Your task to perform on an android device: turn on airplane mode Image 0: 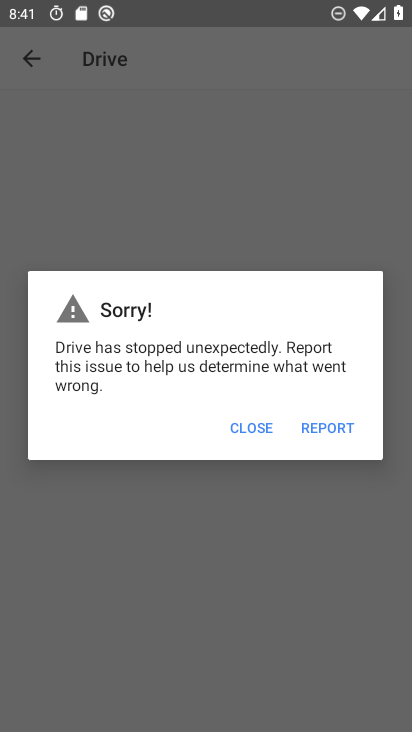
Step 0: press home button
Your task to perform on an android device: turn on airplane mode Image 1: 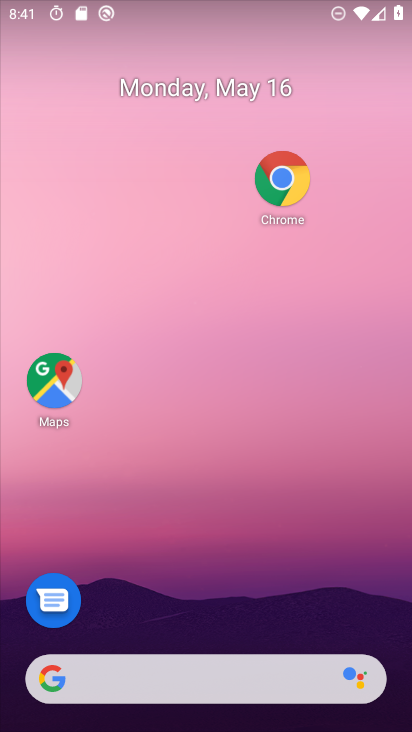
Step 1: drag from (125, 676) to (281, 115)
Your task to perform on an android device: turn on airplane mode Image 2: 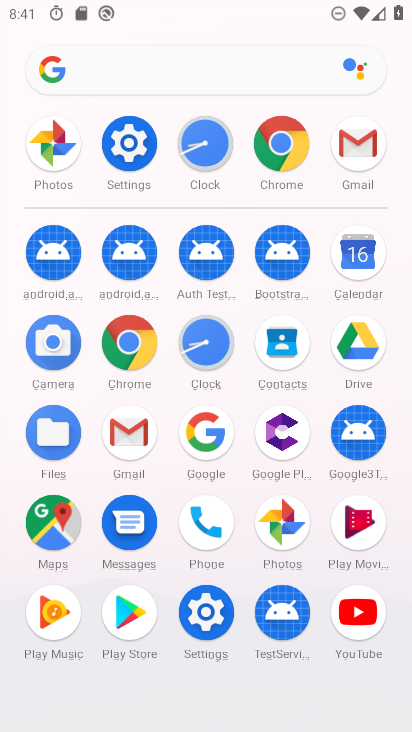
Step 2: click (128, 153)
Your task to perform on an android device: turn on airplane mode Image 3: 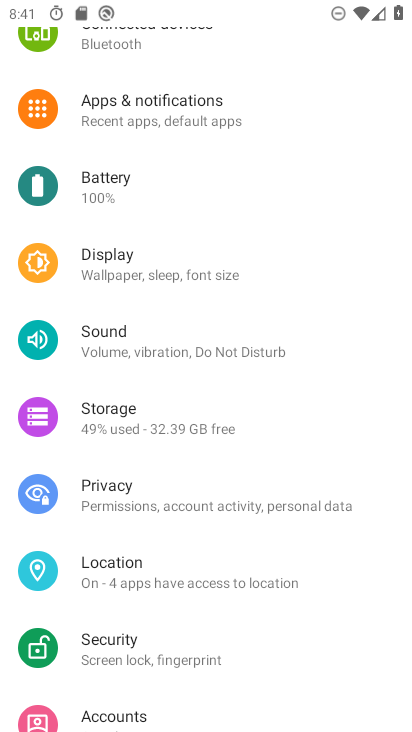
Step 3: drag from (291, 105) to (256, 534)
Your task to perform on an android device: turn on airplane mode Image 4: 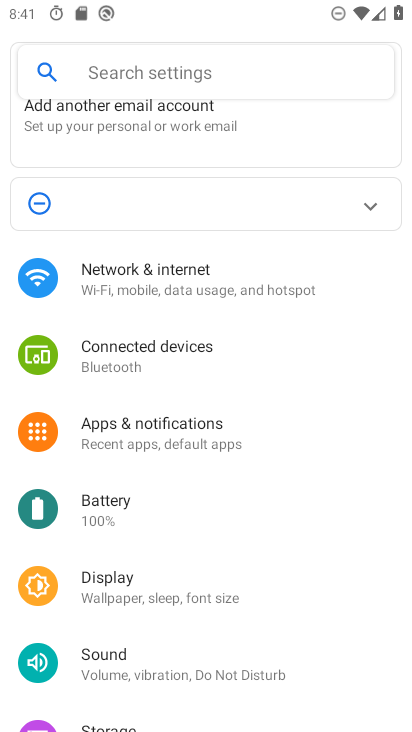
Step 4: click (196, 291)
Your task to perform on an android device: turn on airplane mode Image 5: 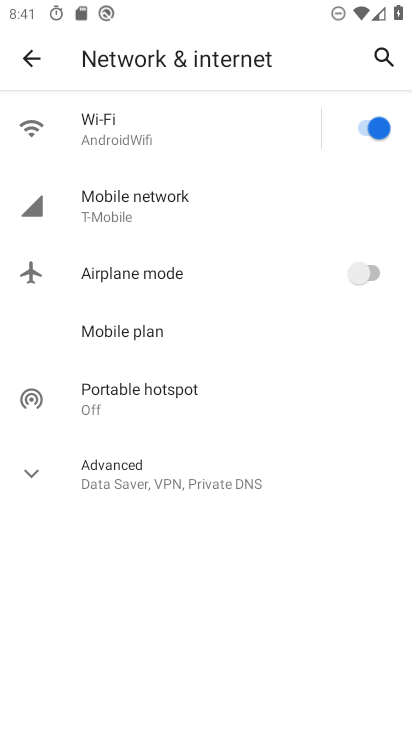
Step 5: click (382, 276)
Your task to perform on an android device: turn on airplane mode Image 6: 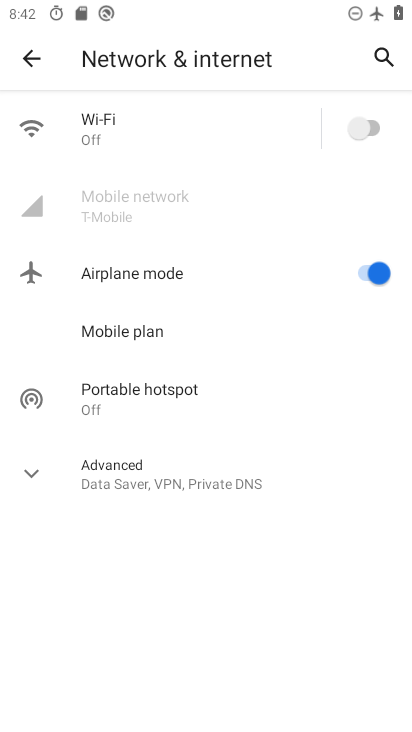
Step 6: task complete